Your task to perform on an android device: Open the calendar and show me this week's events? Image 0: 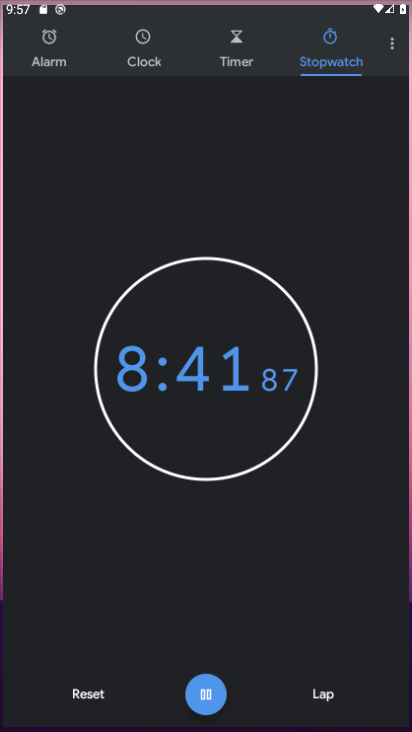
Step 0: click (109, 650)
Your task to perform on an android device: Open the calendar and show me this week's events? Image 1: 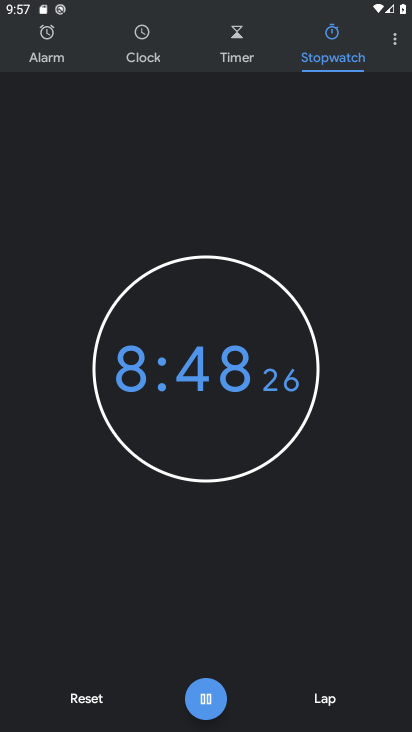
Step 1: click (83, 707)
Your task to perform on an android device: Open the calendar and show me this week's events? Image 2: 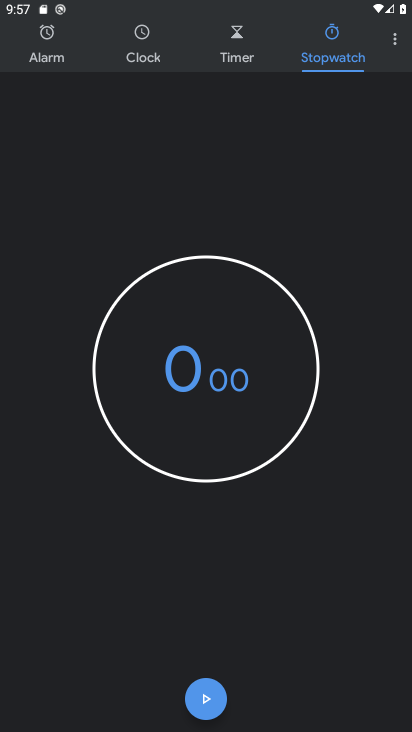
Step 2: press home button
Your task to perform on an android device: Open the calendar and show me this week's events? Image 3: 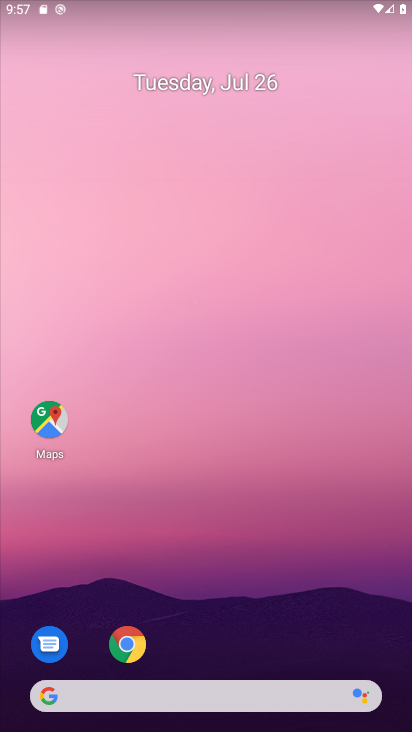
Step 3: drag from (221, 638) to (238, 0)
Your task to perform on an android device: Open the calendar and show me this week's events? Image 4: 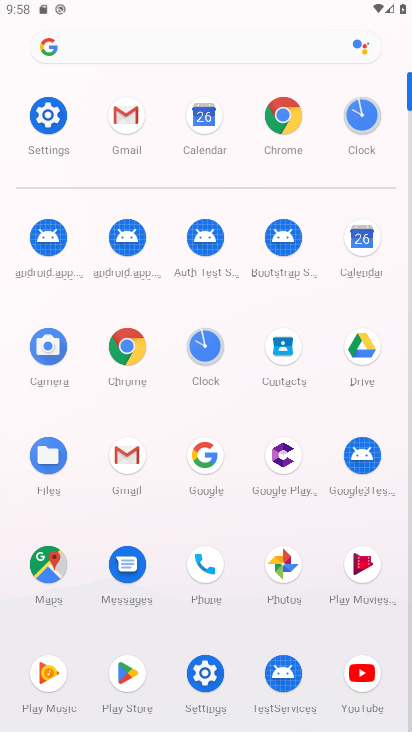
Step 4: click (368, 250)
Your task to perform on an android device: Open the calendar and show me this week's events? Image 5: 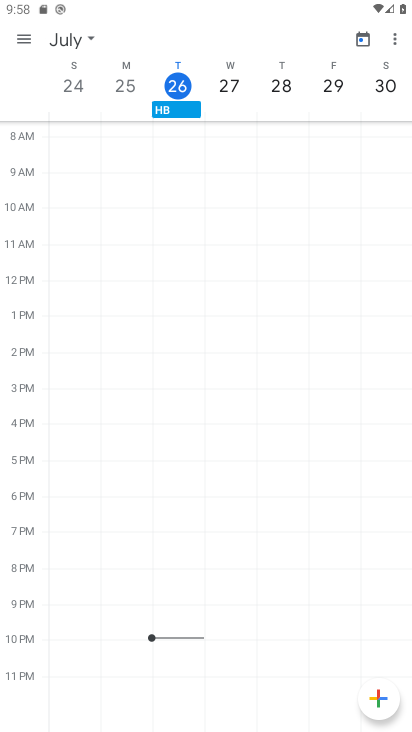
Step 5: task complete